Your task to perform on an android device: Show me productivity apps on the Play Store Image 0: 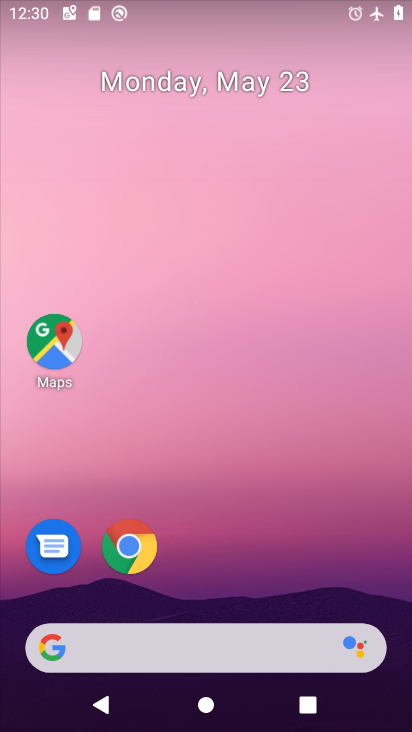
Step 0: drag from (184, 623) to (211, 165)
Your task to perform on an android device: Show me productivity apps on the Play Store Image 1: 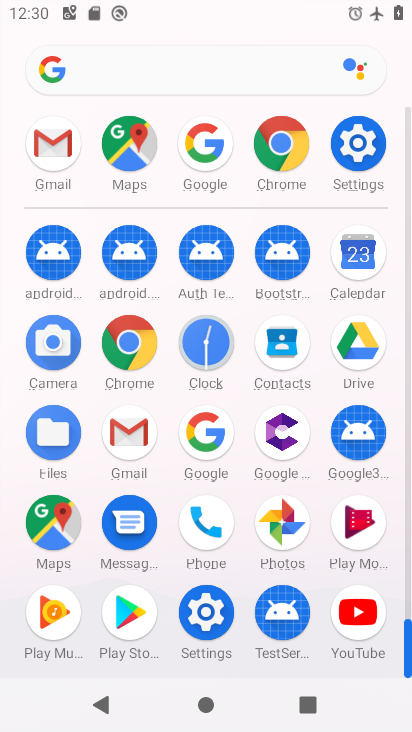
Step 1: drag from (217, 467) to (377, 180)
Your task to perform on an android device: Show me productivity apps on the Play Store Image 2: 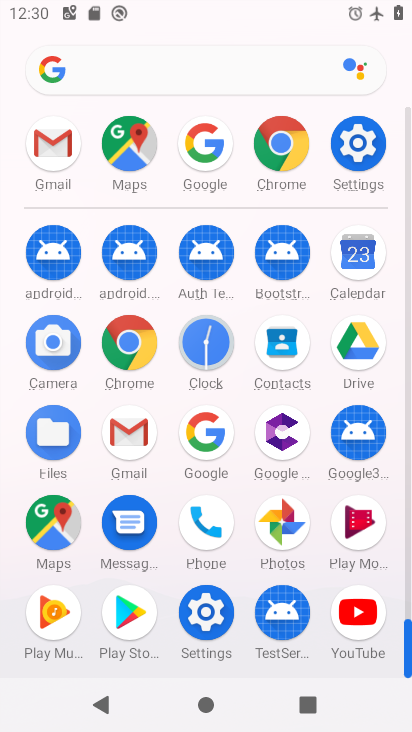
Step 2: drag from (224, 544) to (230, 156)
Your task to perform on an android device: Show me productivity apps on the Play Store Image 3: 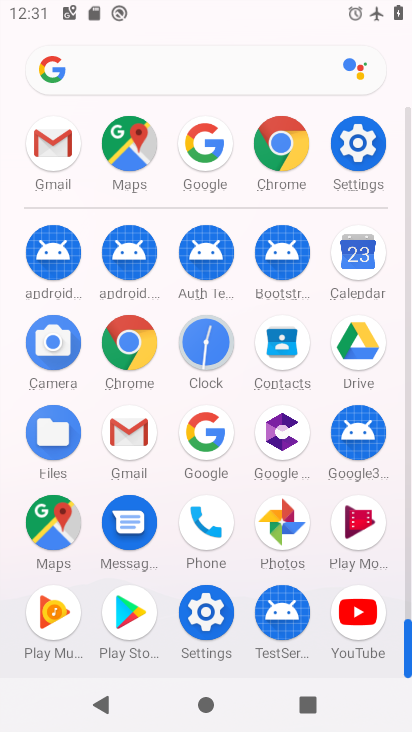
Step 3: click (139, 619)
Your task to perform on an android device: Show me productivity apps on the Play Store Image 4: 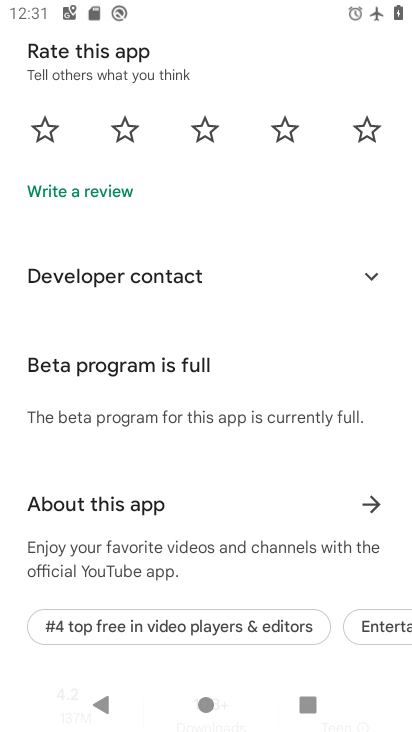
Step 4: drag from (236, 293) to (178, 718)
Your task to perform on an android device: Show me productivity apps on the Play Store Image 5: 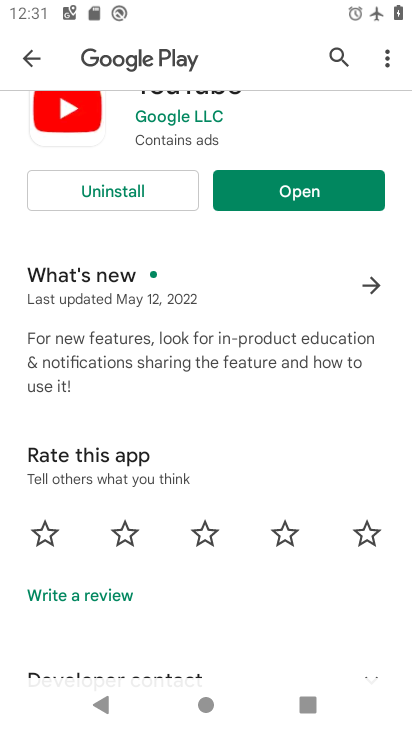
Step 5: drag from (188, 355) to (131, 717)
Your task to perform on an android device: Show me productivity apps on the Play Store Image 6: 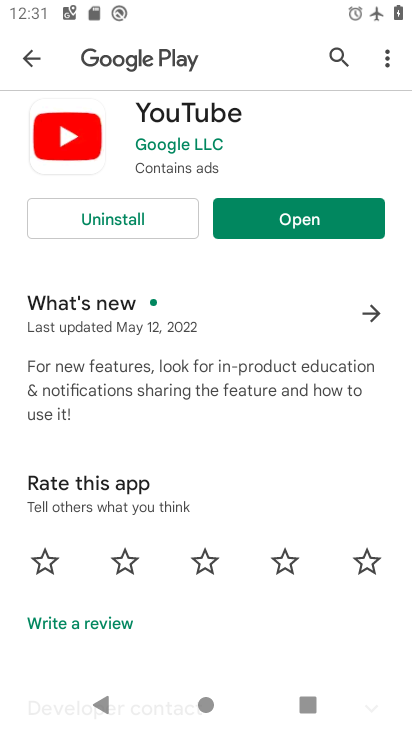
Step 6: click (33, 68)
Your task to perform on an android device: Show me productivity apps on the Play Store Image 7: 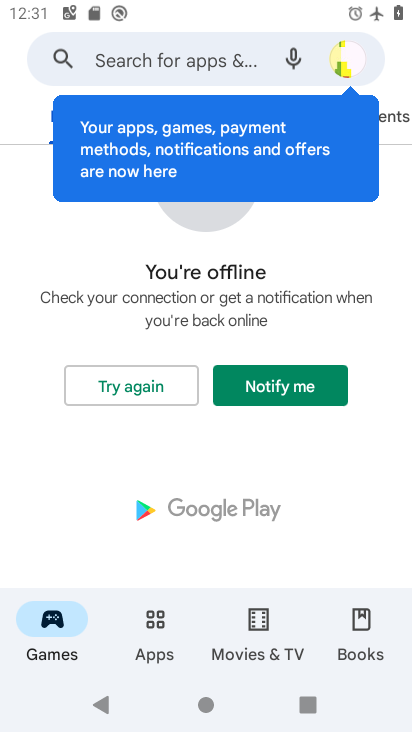
Step 7: drag from (198, 284) to (166, 639)
Your task to perform on an android device: Show me productivity apps on the Play Store Image 8: 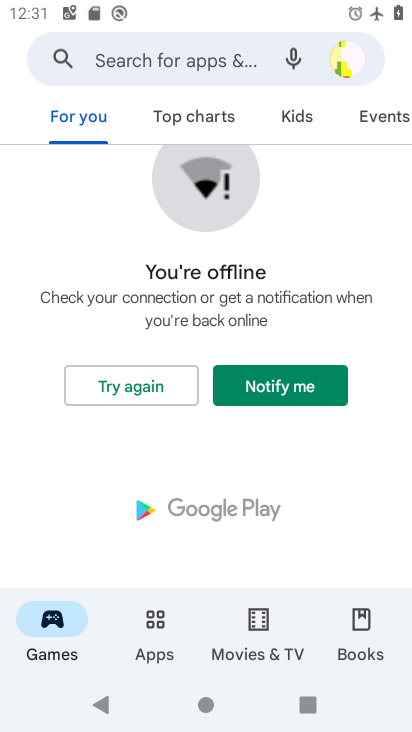
Step 8: click (204, 68)
Your task to perform on an android device: Show me productivity apps on the Play Store Image 9: 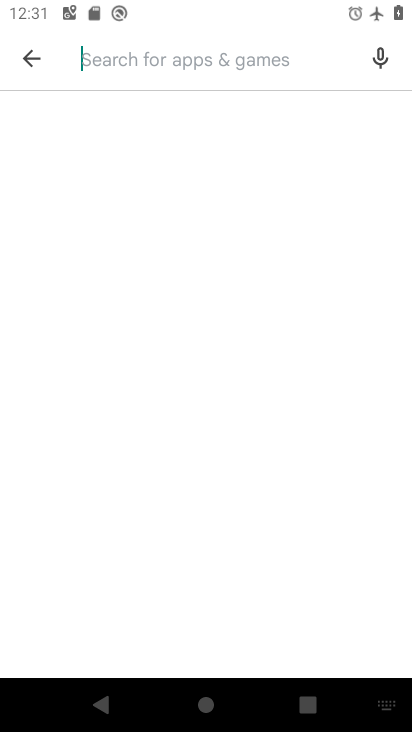
Step 9: type "producttivity"
Your task to perform on an android device: Show me productivity apps on the Play Store Image 10: 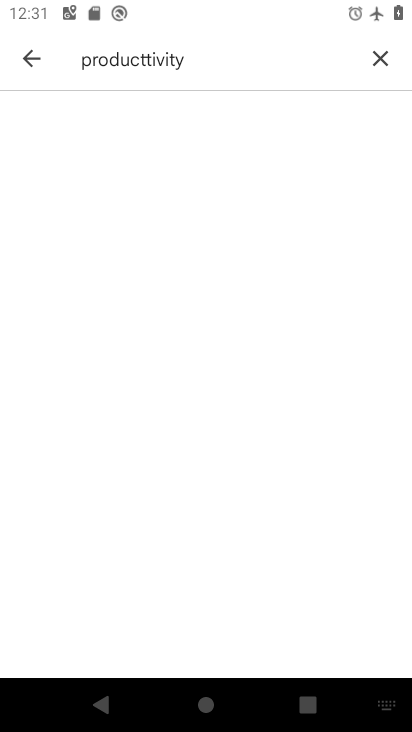
Step 10: task complete